Your task to perform on an android device: check storage Image 0: 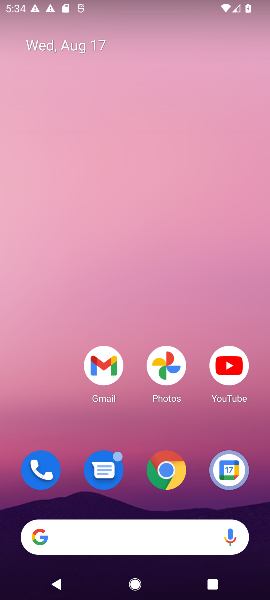
Step 0: drag from (126, 445) to (7, 7)
Your task to perform on an android device: check storage Image 1: 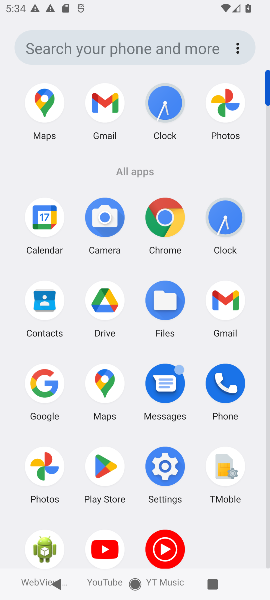
Step 1: click (167, 476)
Your task to perform on an android device: check storage Image 2: 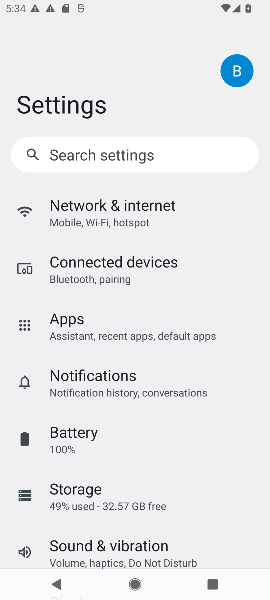
Step 2: drag from (115, 473) to (140, 274)
Your task to perform on an android device: check storage Image 3: 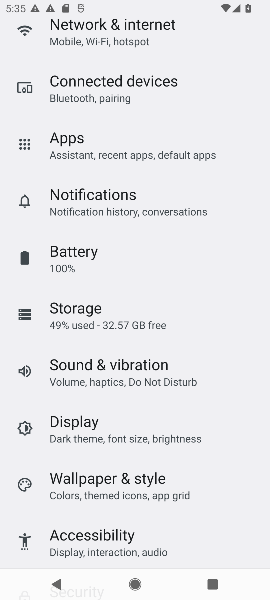
Step 3: click (107, 322)
Your task to perform on an android device: check storage Image 4: 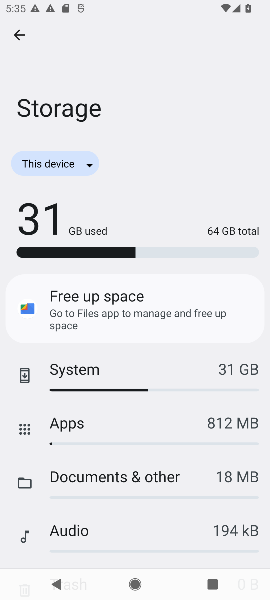
Step 4: task complete